Your task to perform on an android device: toggle airplane mode Image 0: 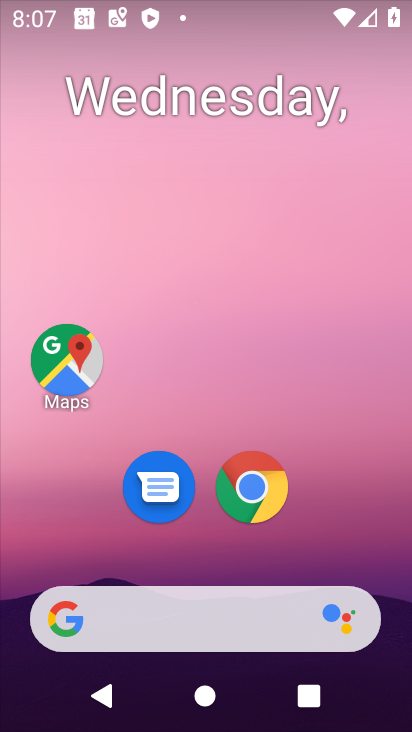
Step 0: drag from (374, 549) to (354, 210)
Your task to perform on an android device: toggle airplane mode Image 1: 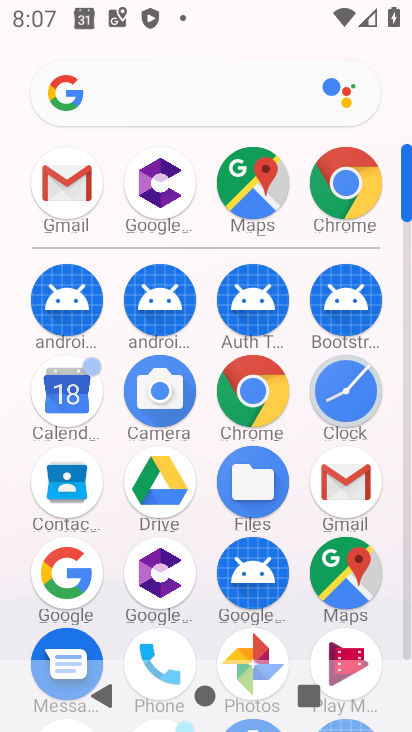
Step 1: drag from (201, 546) to (202, 337)
Your task to perform on an android device: toggle airplane mode Image 2: 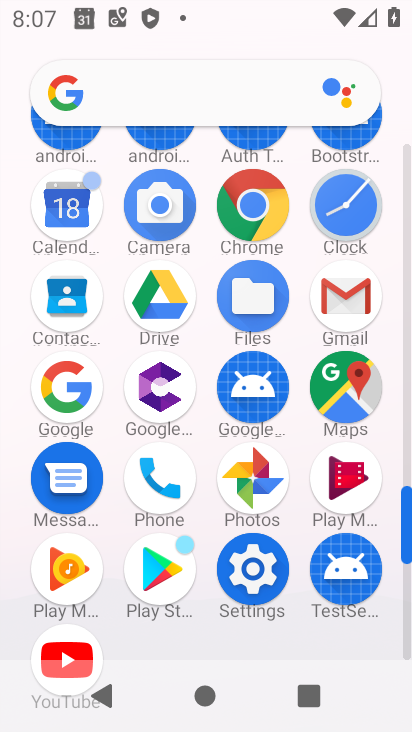
Step 2: drag from (200, 538) to (202, 401)
Your task to perform on an android device: toggle airplane mode Image 3: 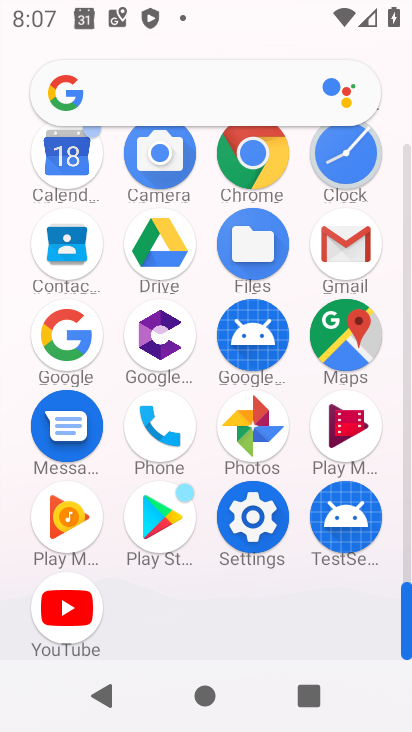
Step 3: click (258, 547)
Your task to perform on an android device: toggle airplane mode Image 4: 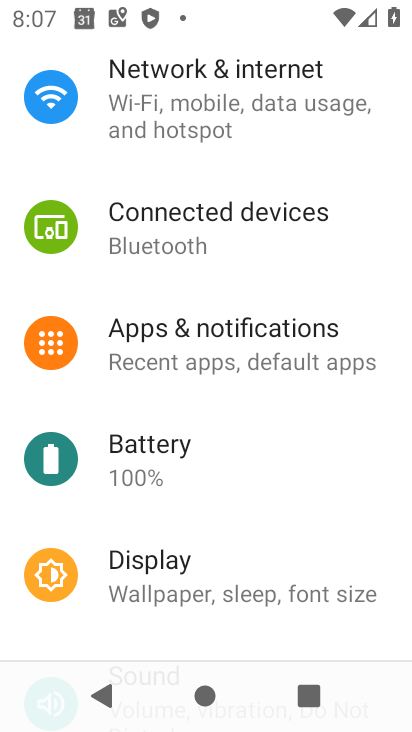
Step 4: drag from (306, 435) to (311, 500)
Your task to perform on an android device: toggle airplane mode Image 5: 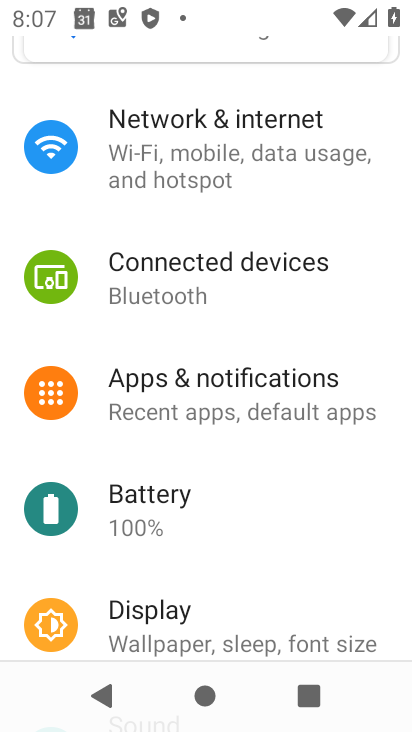
Step 5: drag from (319, 562) to (322, 467)
Your task to perform on an android device: toggle airplane mode Image 6: 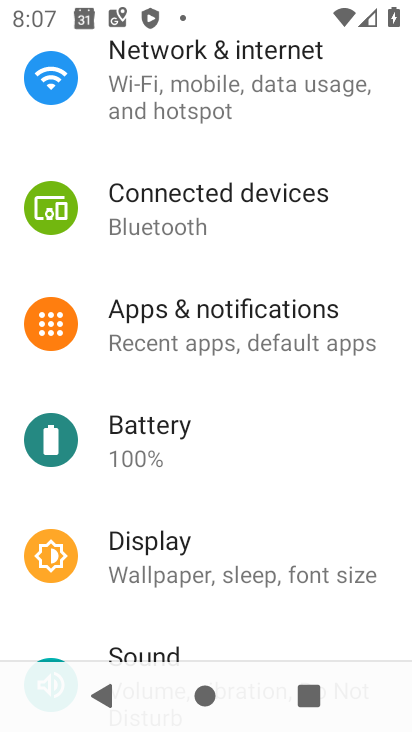
Step 6: drag from (326, 603) to (331, 500)
Your task to perform on an android device: toggle airplane mode Image 7: 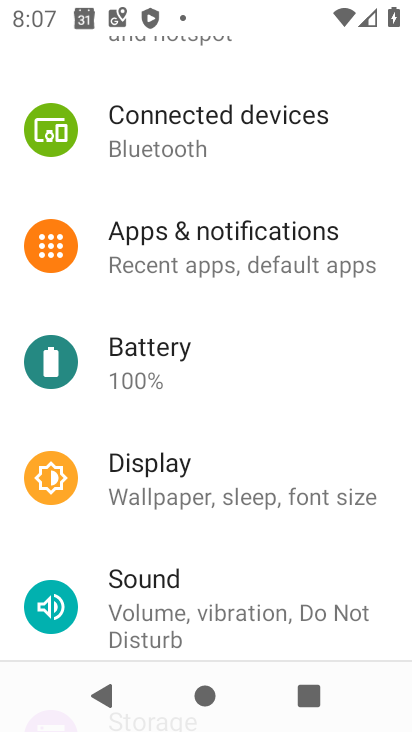
Step 7: drag from (334, 568) to (334, 480)
Your task to perform on an android device: toggle airplane mode Image 8: 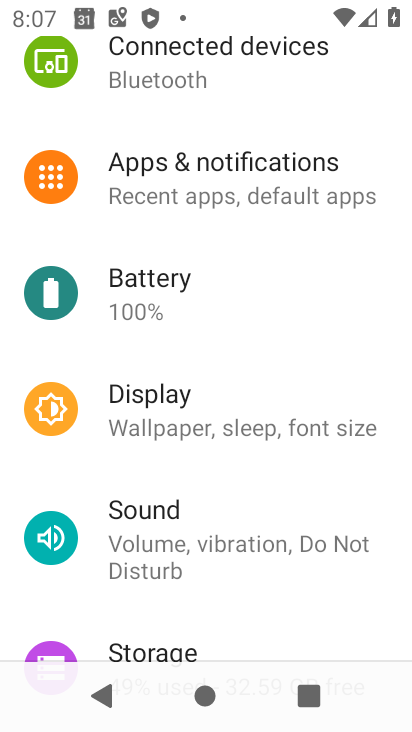
Step 8: drag from (322, 583) to (333, 487)
Your task to perform on an android device: toggle airplane mode Image 9: 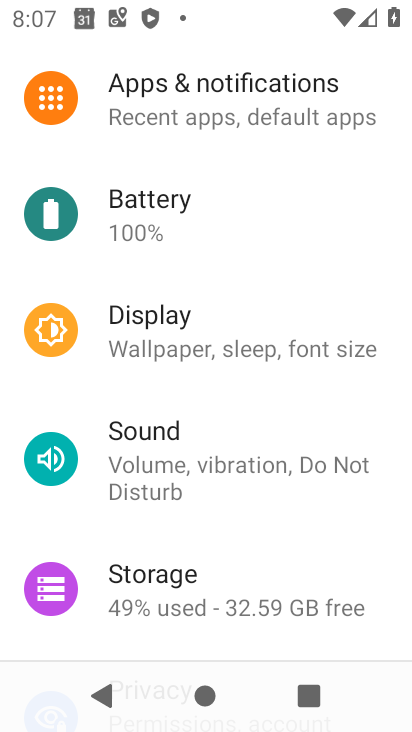
Step 9: drag from (326, 565) to (327, 483)
Your task to perform on an android device: toggle airplane mode Image 10: 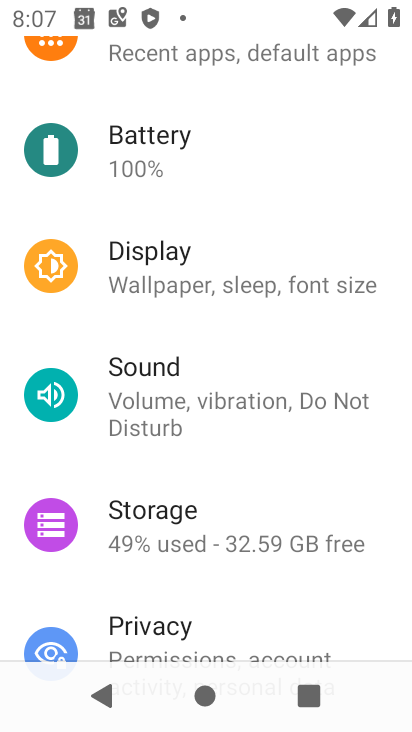
Step 10: drag from (326, 600) to (325, 484)
Your task to perform on an android device: toggle airplane mode Image 11: 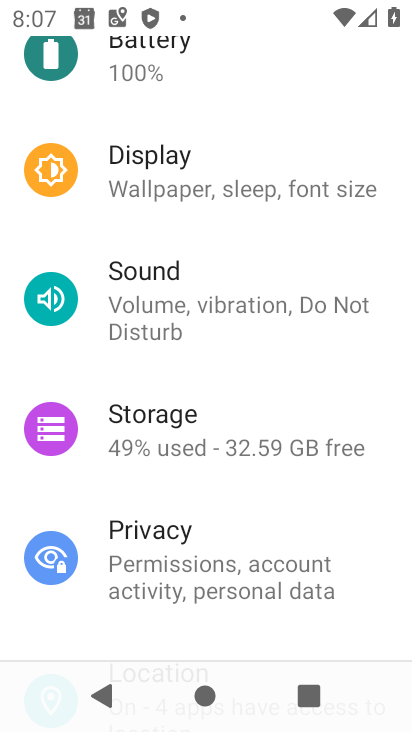
Step 11: drag from (338, 400) to (342, 495)
Your task to perform on an android device: toggle airplane mode Image 12: 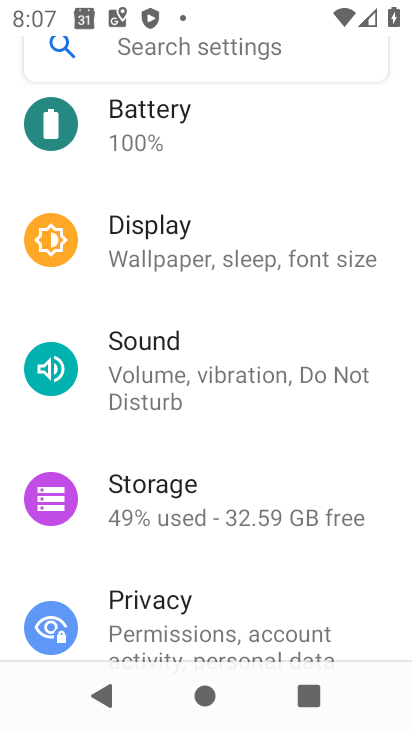
Step 12: drag from (347, 414) to (347, 514)
Your task to perform on an android device: toggle airplane mode Image 13: 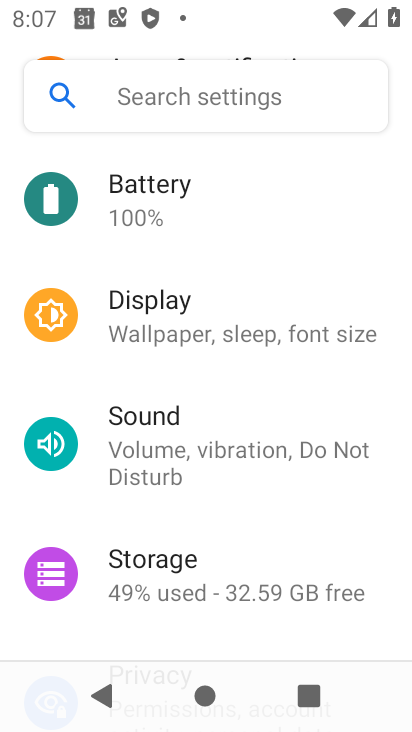
Step 13: drag from (342, 386) to (346, 477)
Your task to perform on an android device: toggle airplane mode Image 14: 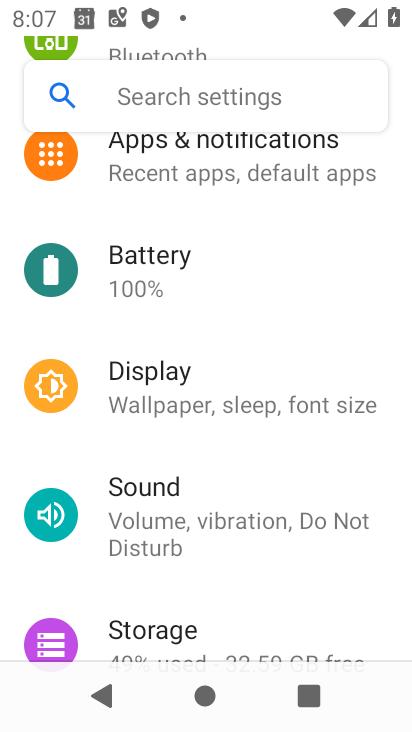
Step 14: drag from (338, 329) to (321, 469)
Your task to perform on an android device: toggle airplane mode Image 15: 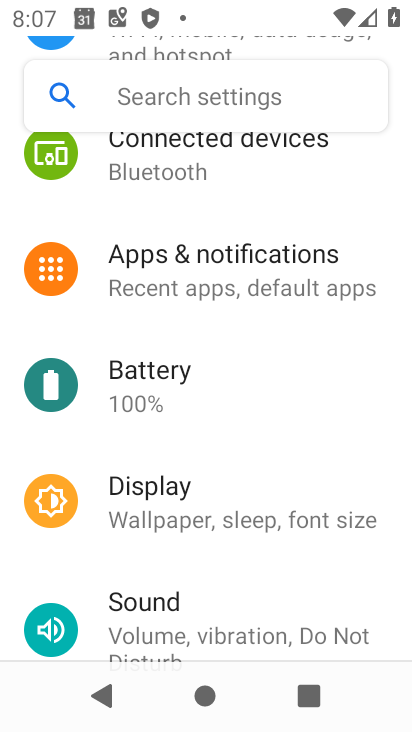
Step 15: drag from (322, 352) to (322, 472)
Your task to perform on an android device: toggle airplane mode Image 16: 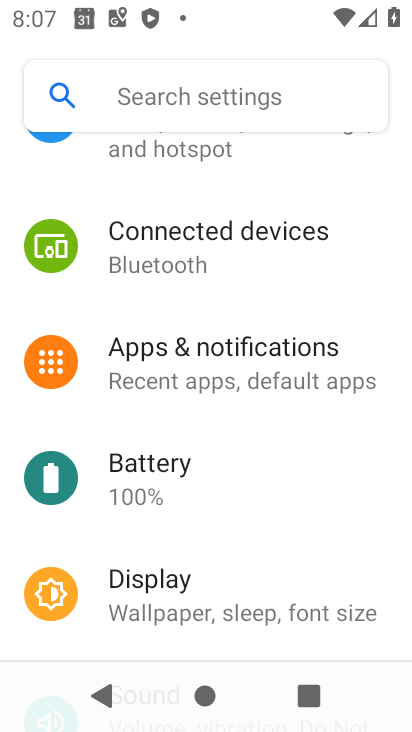
Step 16: drag from (343, 297) to (343, 434)
Your task to perform on an android device: toggle airplane mode Image 17: 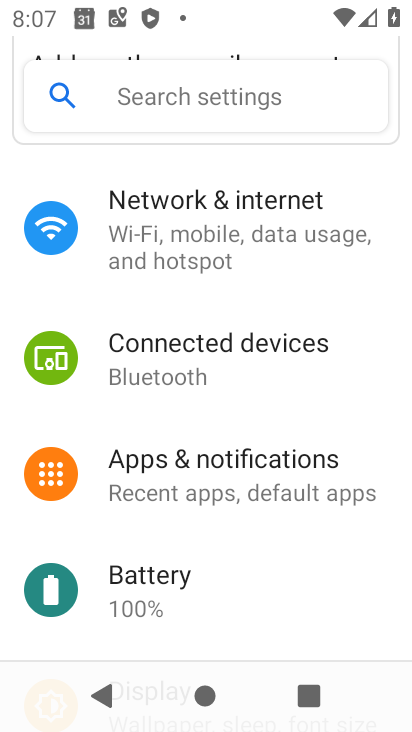
Step 17: drag from (361, 289) to (354, 410)
Your task to perform on an android device: toggle airplane mode Image 18: 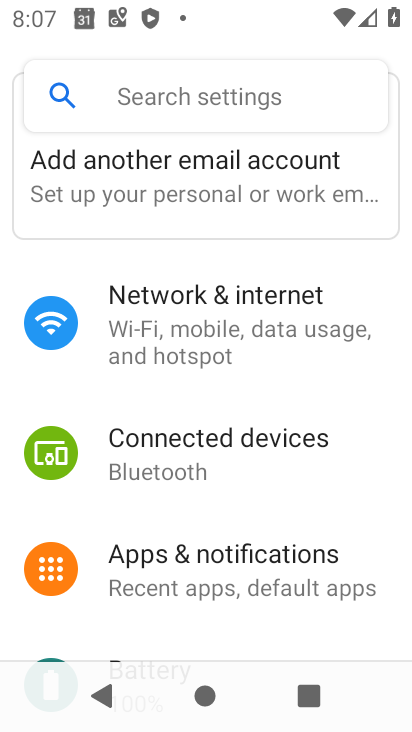
Step 18: click (286, 321)
Your task to perform on an android device: toggle airplane mode Image 19: 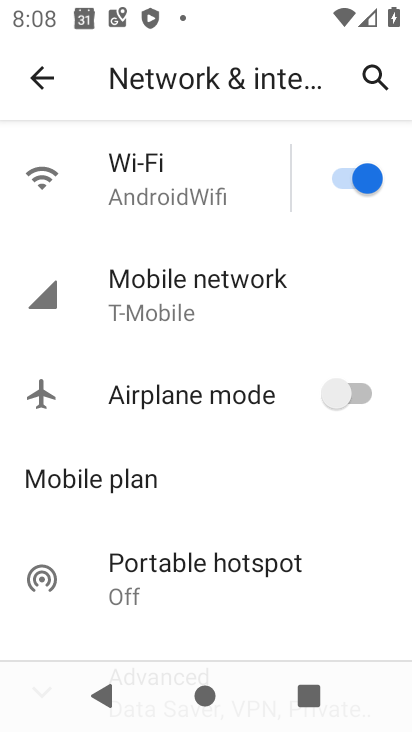
Step 19: click (340, 401)
Your task to perform on an android device: toggle airplane mode Image 20: 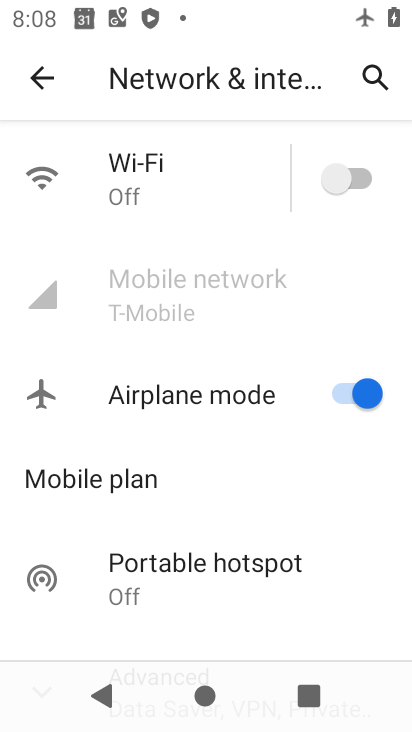
Step 20: task complete